Your task to perform on an android device: turn on wifi Image 0: 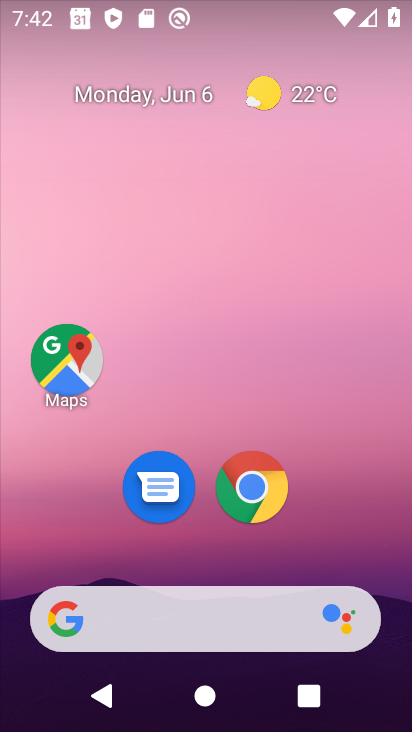
Step 0: drag from (302, 543) to (383, 66)
Your task to perform on an android device: turn on wifi Image 1: 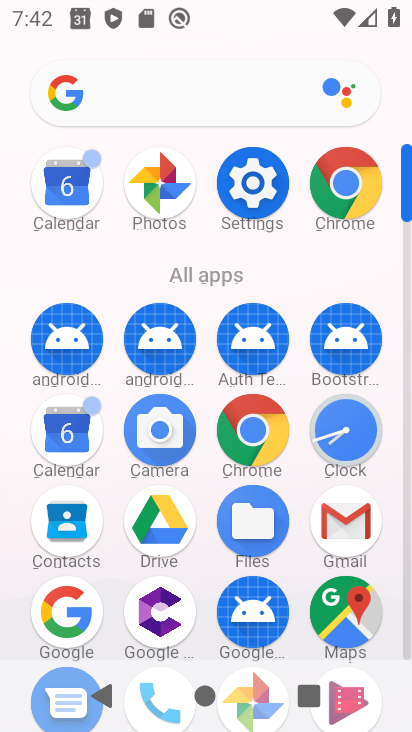
Step 1: click (251, 181)
Your task to perform on an android device: turn on wifi Image 2: 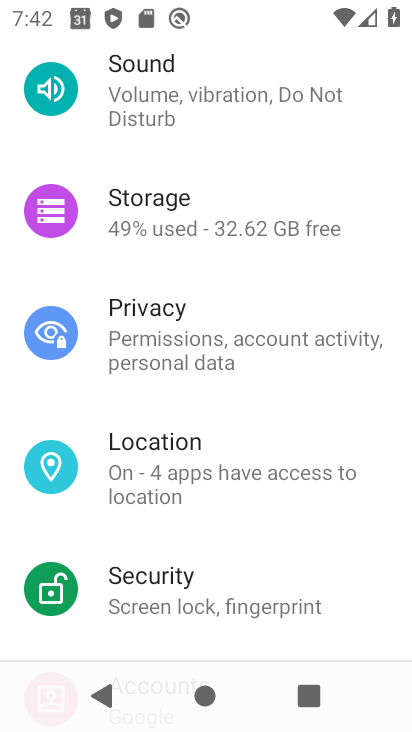
Step 2: drag from (306, 167) to (256, 510)
Your task to perform on an android device: turn on wifi Image 3: 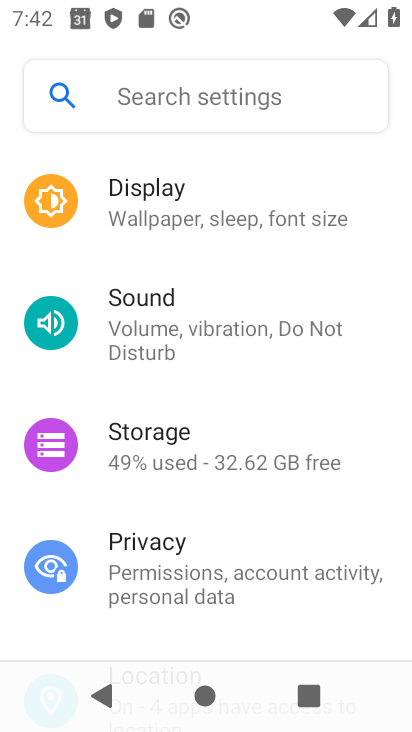
Step 3: drag from (255, 273) to (238, 590)
Your task to perform on an android device: turn on wifi Image 4: 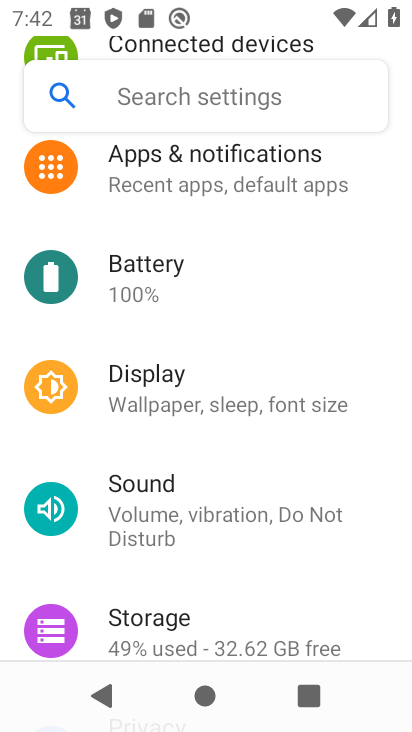
Step 4: drag from (312, 184) to (318, 601)
Your task to perform on an android device: turn on wifi Image 5: 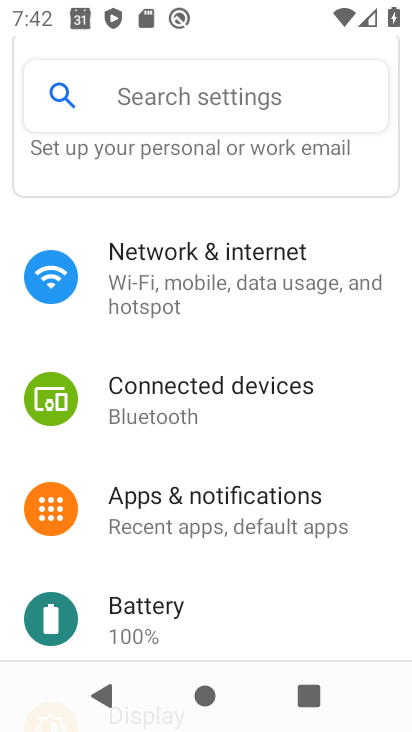
Step 5: click (232, 284)
Your task to perform on an android device: turn on wifi Image 6: 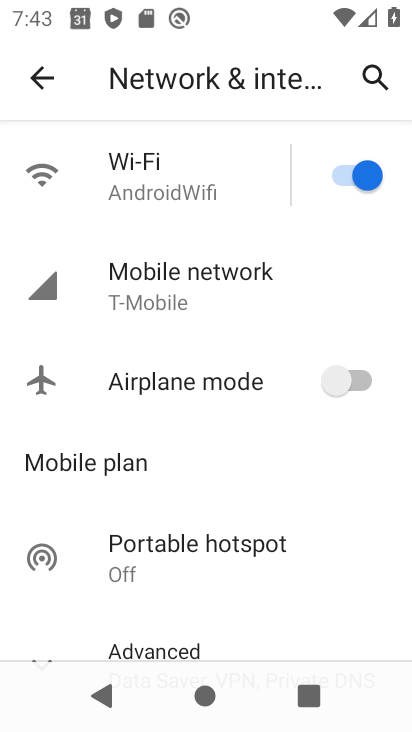
Step 6: task complete